Your task to perform on an android device: Open maps Image 0: 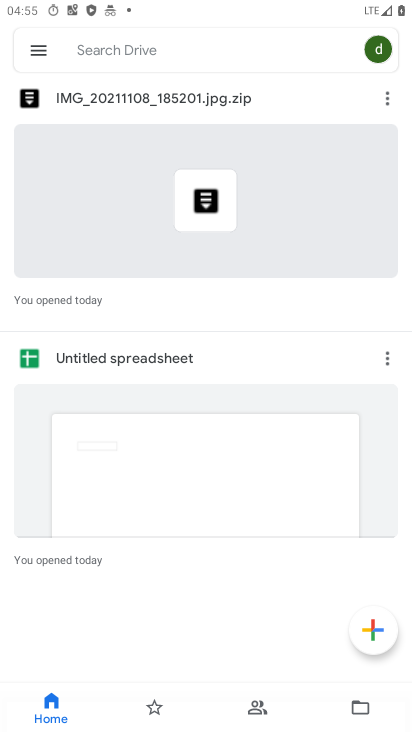
Step 0: drag from (217, 639) to (409, 476)
Your task to perform on an android device: Open maps Image 1: 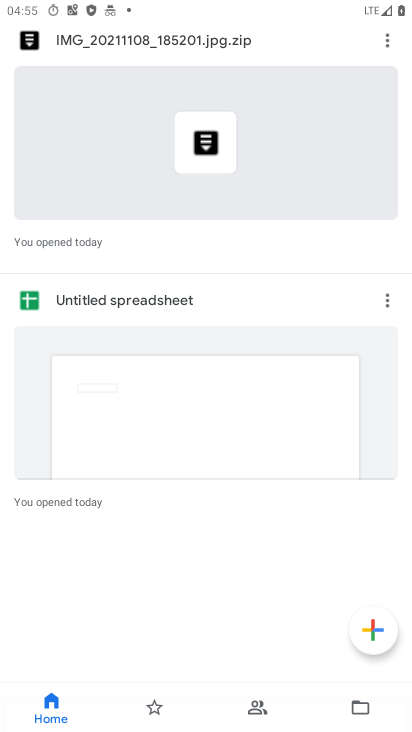
Step 1: press home button
Your task to perform on an android device: Open maps Image 2: 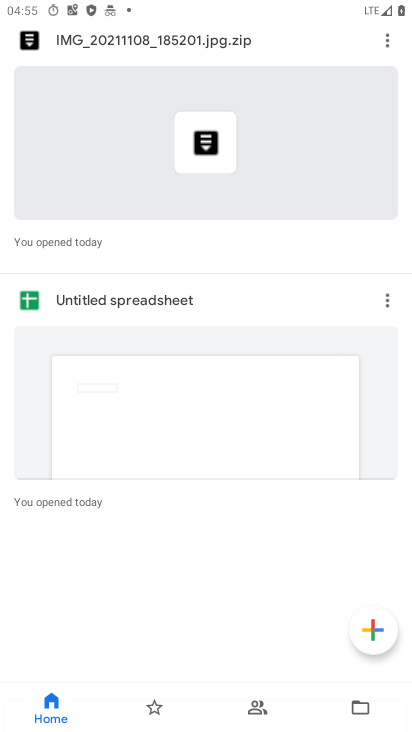
Step 2: drag from (409, 476) to (407, 543)
Your task to perform on an android device: Open maps Image 3: 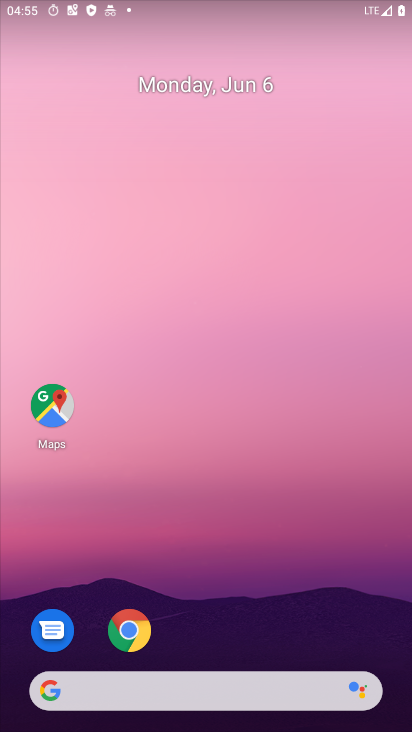
Step 3: drag from (225, 646) to (269, 203)
Your task to perform on an android device: Open maps Image 4: 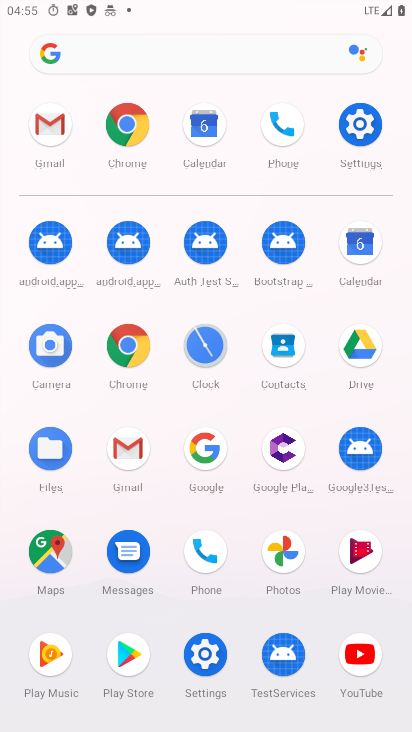
Step 4: click (53, 547)
Your task to perform on an android device: Open maps Image 5: 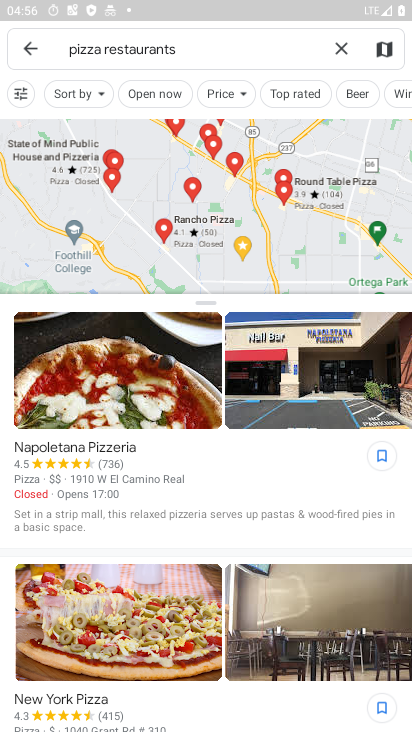
Step 5: click (27, 49)
Your task to perform on an android device: Open maps Image 6: 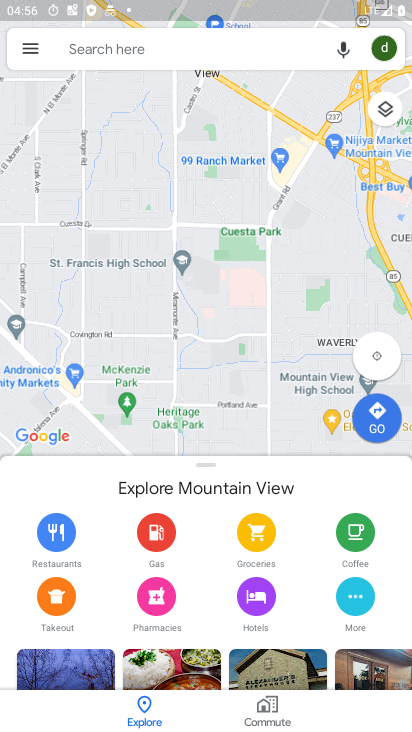
Step 6: task complete